Your task to perform on an android device: turn off javascript in the chrome app Image 0: 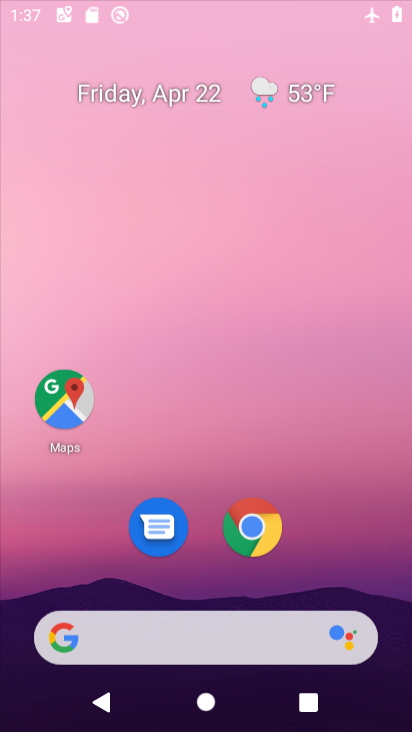
Step 0: drag from (314, 415) to (293, 3)
Your task to perform on an android device: turn off javascript in the chrome app Image 1: 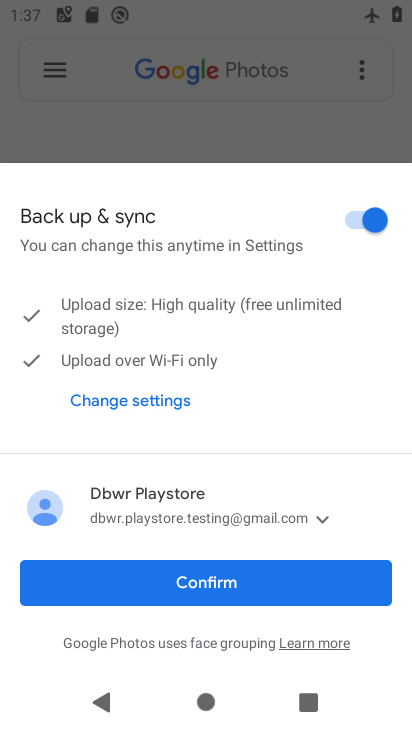
Step 1: press home button
Your task to perform on an android device: turn off javascript in the chrome app Image 2: 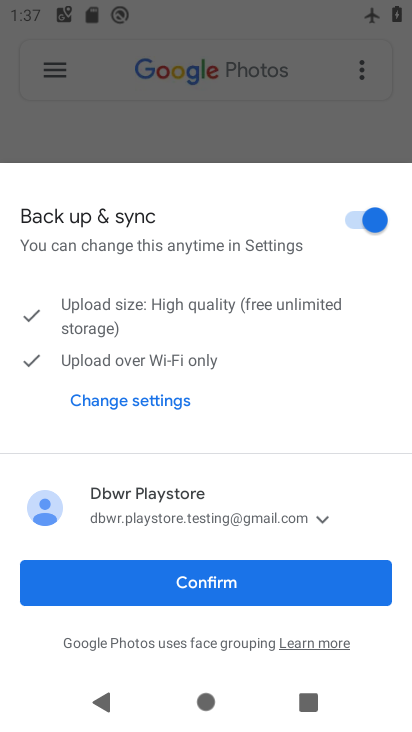
Step 2: drag from (293, 3) to (397, 447)
Your task to perform on an android device: turn off javascript in the chrome app Image 3: 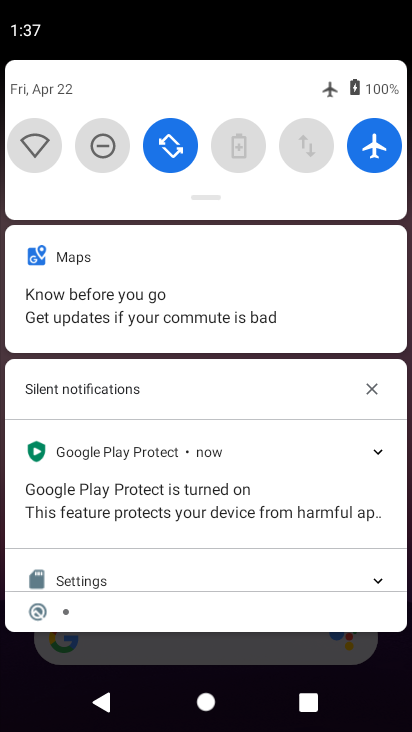
Step 3: click (253, 542)
Your task to perform on an android device: turn off javascript in the chrome app Image 4: 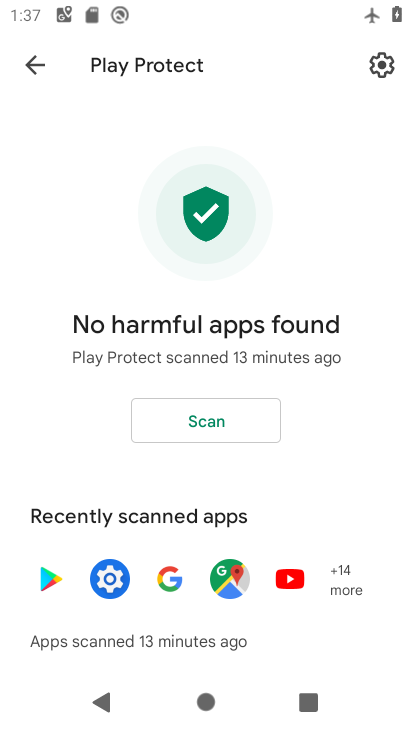
Step 4: press home button
Your task to perform on an android device: turn off javascript in the chrome app Image 5: 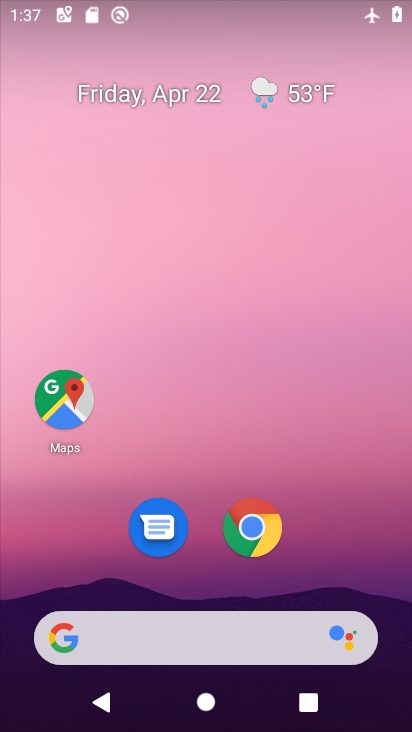
Step 5: click (249, 538)
Your task to perform on an android device: turn off javascript in the chrome app Image 6: 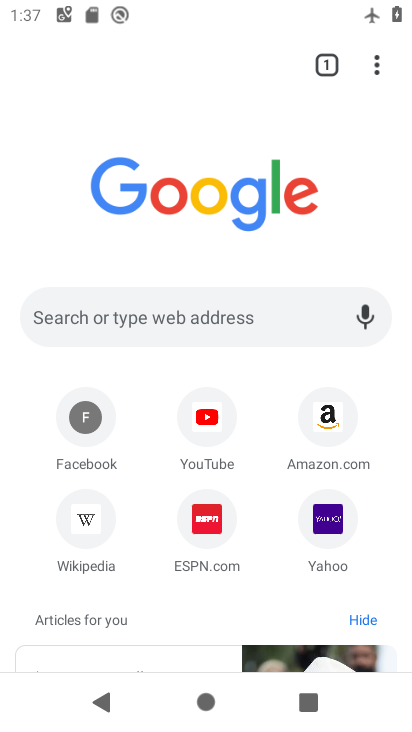
Step 6: click (371, 69)
Your task to perform on an android device: turn off javascript in the chrome app Image 7: 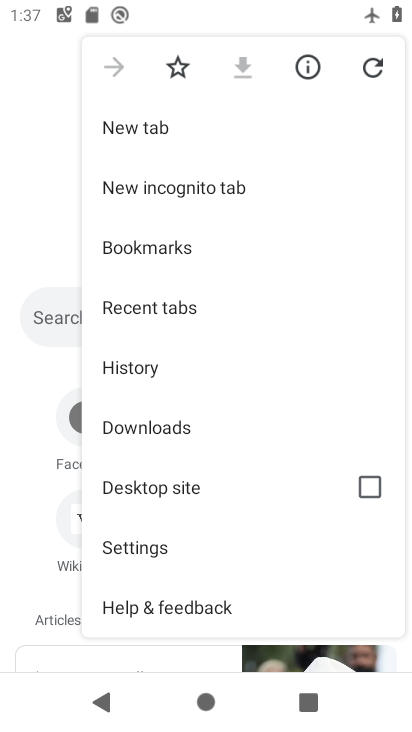
Step 7: click (150, 562)
Your task to perform on an android device: turn off javascript in the chrome app Image 8: 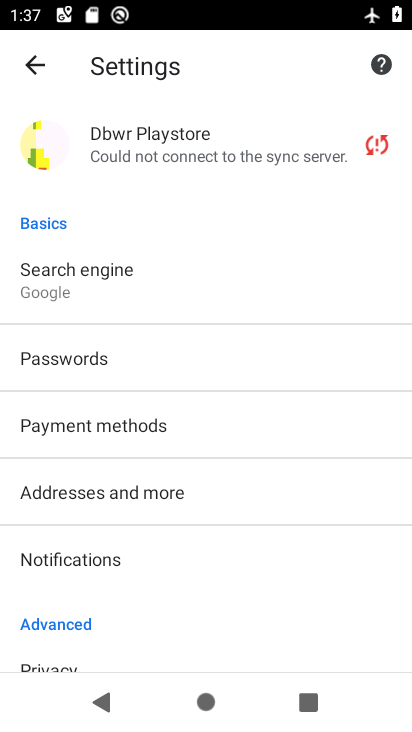
Step 8: drag from (120, 586) to (88, 213)
Your task to perform on an android device: turn off javascript in the chrome app Image 9: 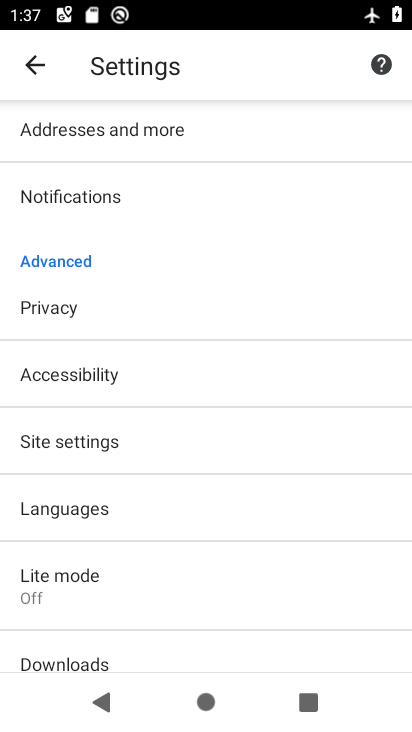
Step 9: click (67, 441)
Your task to perform on an android device: turn off javascript in the chrome app Image 10: 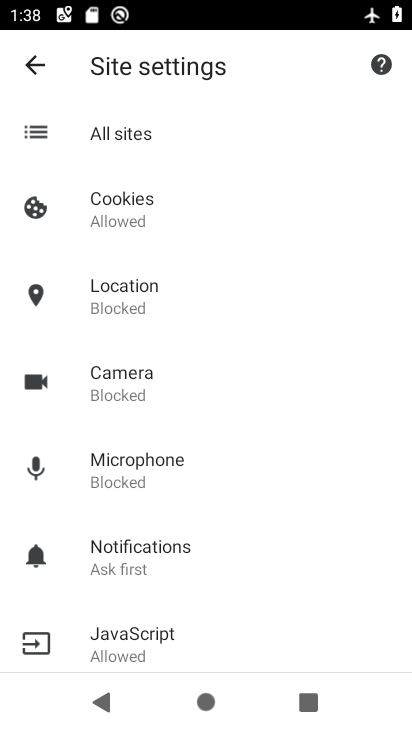
Step 10: click (142, 650)
Your task to perform on an android device: turn off javascript in the chrome app Image 11: 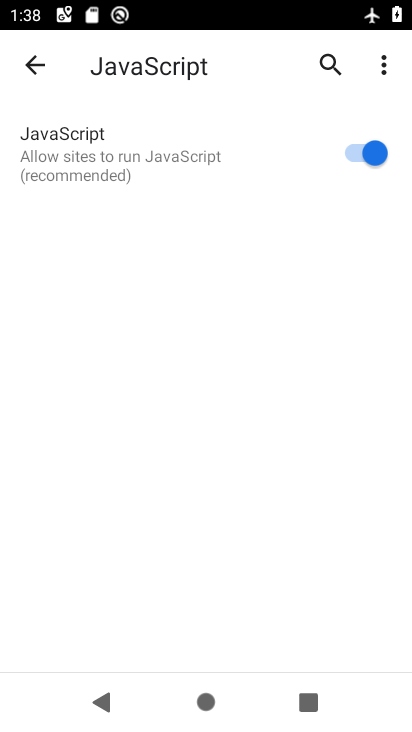
Step 11: click (355, 161)
Your task to perform on an android device: turn off javascript in the chrome app Image 12: 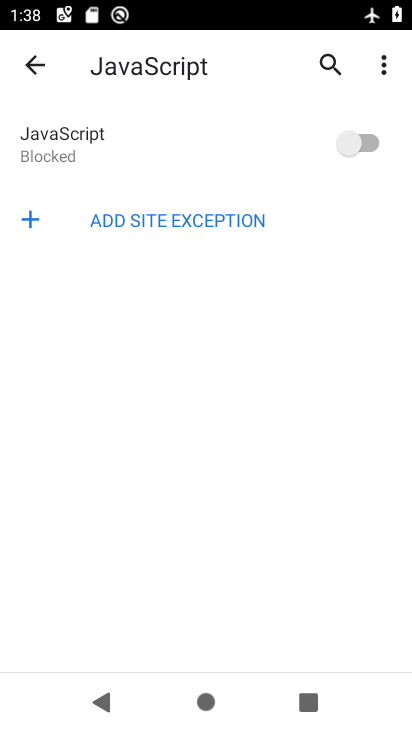
Step 12: task complete